Your task to perform on an android device: Search for flights from NYC to Buenos aires Image 0: 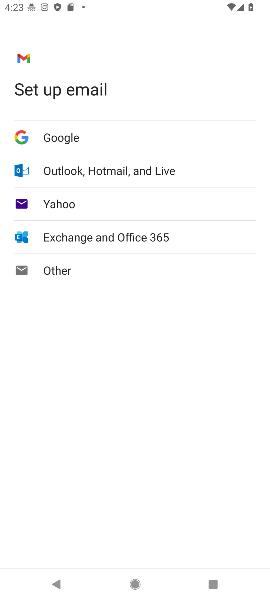
Step 0: press home button
Your task to perform on an android device: Search for flights from NYC to Buenos aires Image 1: 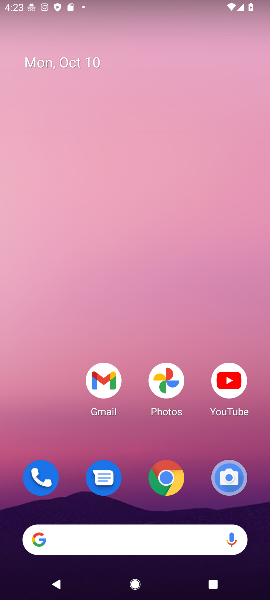
Step 1: click (175, 527)
Your task to perform on an android device: Search for flights from NYC to Buenos aires Image 2: 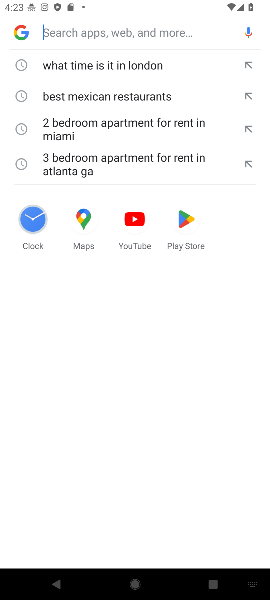
Step 2: drag from (198, 579) to (246, 542)
Your task to perform on an android device: Search for flights from NYC to Buenos aires Image 3: 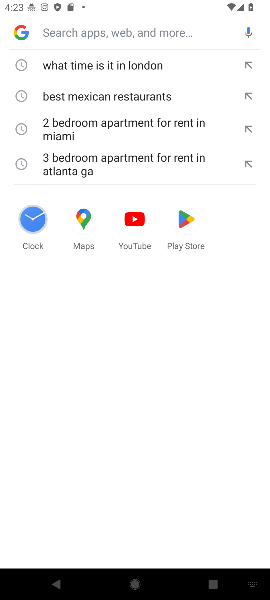
Step 3: type "Search for flights from NYC to Buenos aires"
Your task to perform on an android device: Search for flights from NYC to Buenos aires Image 4: 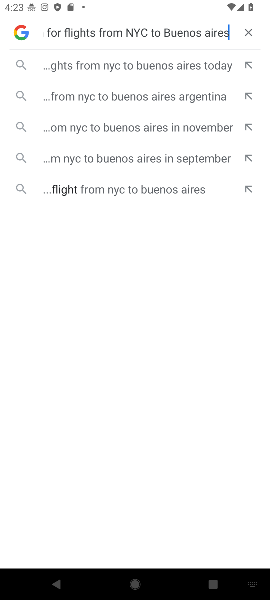
Step 4: click (127, 59)
Your task to perform on an android device: Search for flights from NYC to Buenos aires Image 5: 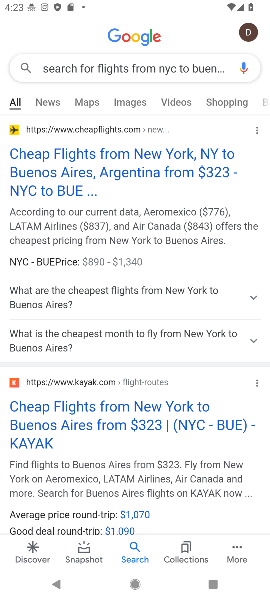
Step 5: click (126, 165)
Your task to perform on an android device: Search for flights from NYC to Buenos aires Image 6: 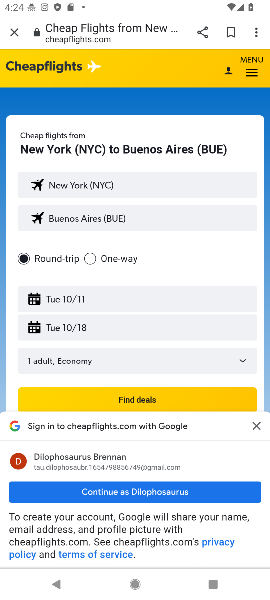
Step 6: click (256, 429)
Your task to perform on an android device: Search for flights from NYC to Buenos aires Image 7: 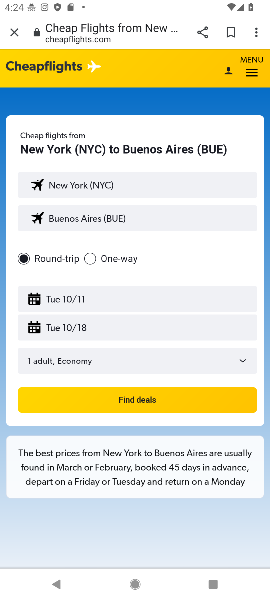
Step 7: task complete